Your task to perform on an android device: toggle show notifications on the lock screen Image 0: 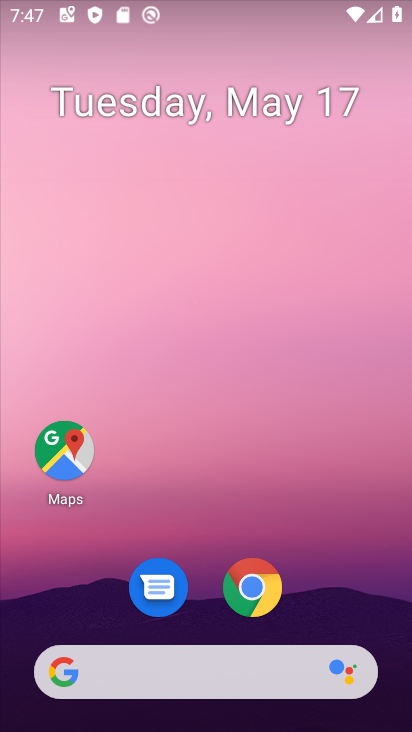
Step 0: click (295, 203)
Your task to perform on an android device: toggle show notifications on the lock screen Image 1: 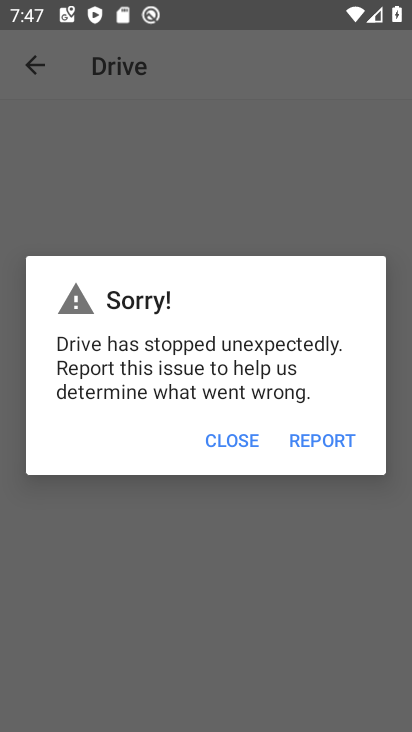
Step 1: press home button
Your task to perform on an android device: toggle show notifications on the lock screen Image 2: 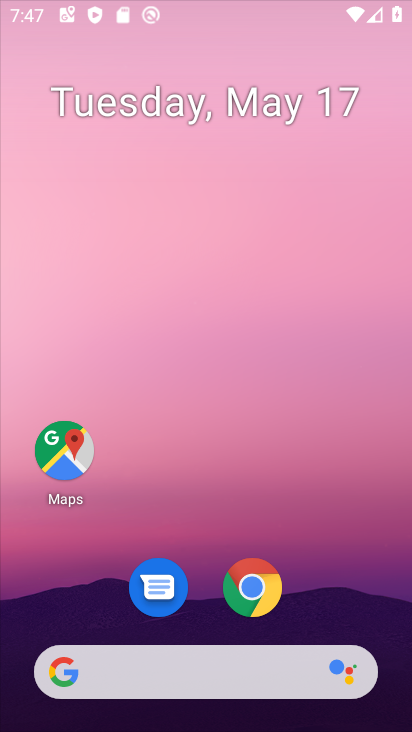
Step 2: drag from (351, 556) to (311, 204)
Your task to perform on an android device: toggle show notifications on the lock screen Image 3: 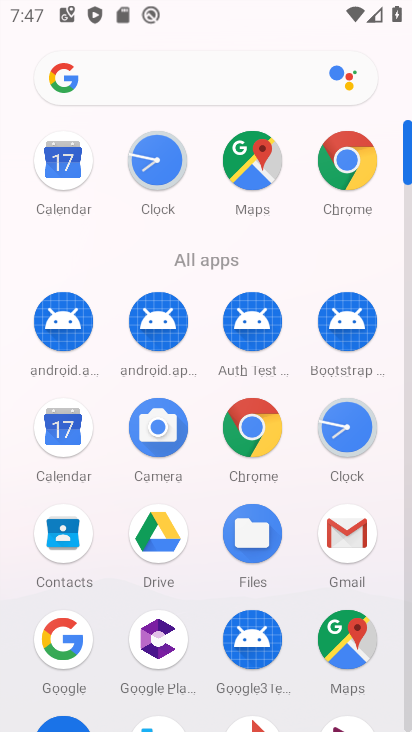
Step 3: drag from (291, 582) to (308, 408)
Your task to perform on an android device: toggle show notifications on the lock screen Image 4: 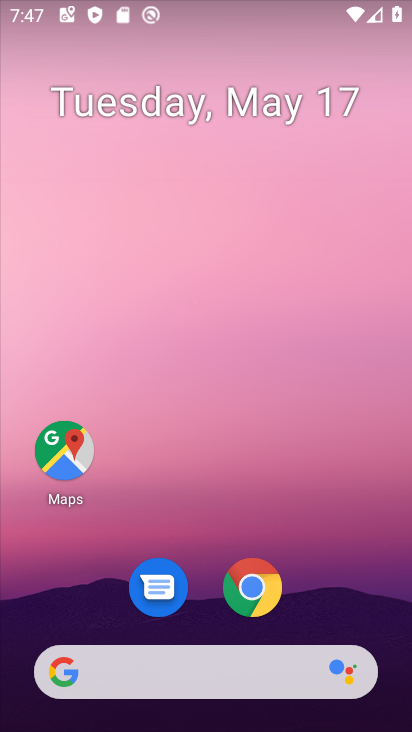
Step 4: drag from (333, 578) to (326, 162)
Your task to perform on an android device: toggle show notifications on the lock screen Image 5: 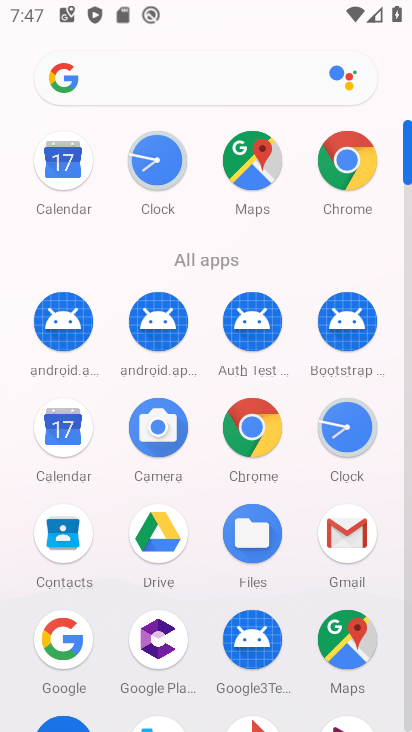
Step 5: drag from (286, 559) to (305, 336)
Your task to perform on an android device: toggle show notifications on the lock screen Image 6: 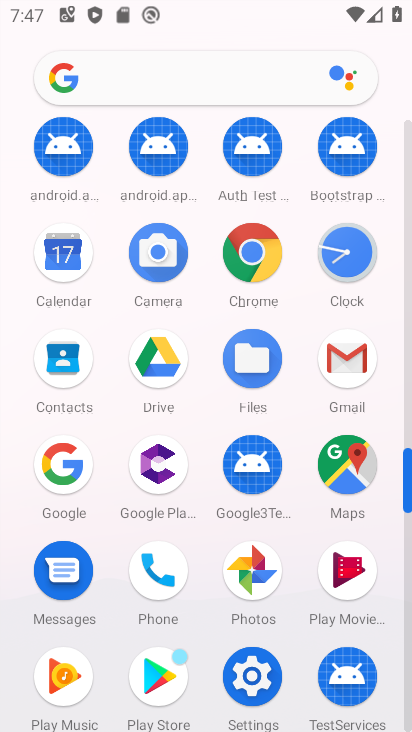
Step 6: click (246, 678)
Your task to perform on an android device: toggle show notifications on the lock screen Image 7: 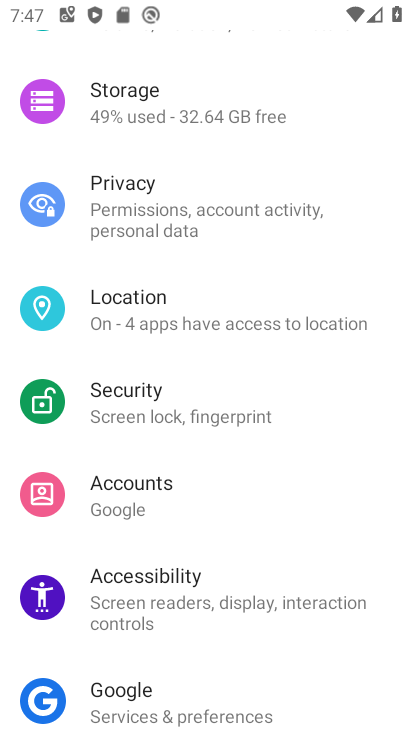
Step 7: drag from (205, 245) to (152, 613)
Your task to perform on an android device: toggle show notifications on the lock screen Image 8: 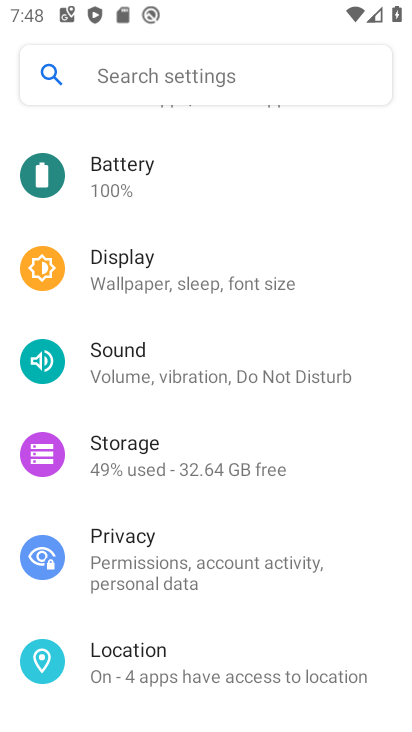
Step 8: drag from (219, 473) to (214, 645)
Your task to perform on an android device: toggle show notifications on the lock screen Image 9: 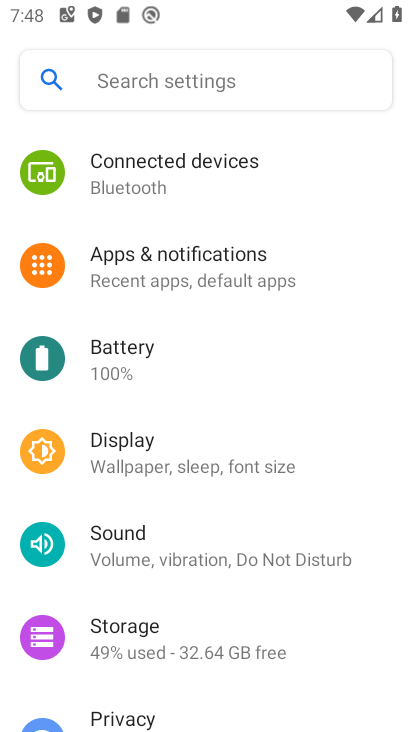
Step 9: click (219, 287)
Your task to perform on an android device: toggle show notifications on the lock screen Image 10: 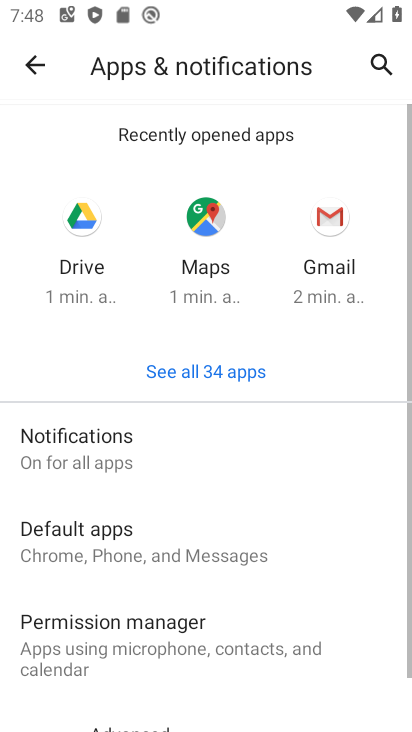
Step 10: click (142, 465)
Your task to perform on an android device: toggle show notifications on the lock screen Image 11: 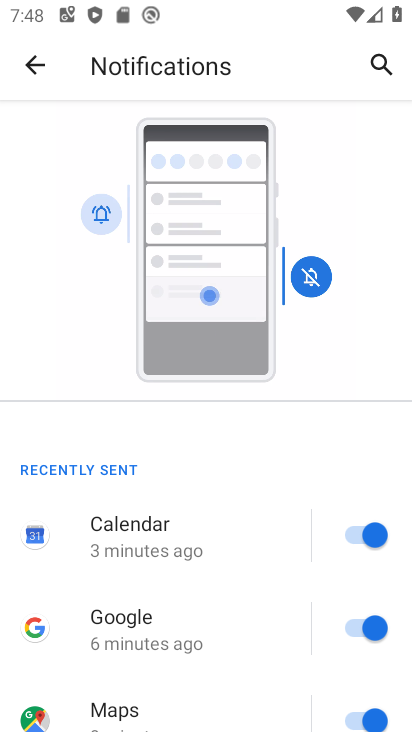
Step 11: drag from (180, 488) to (158, 156)
Your task to perform on an android device: toggle show notifications on the lock screen Image 12: 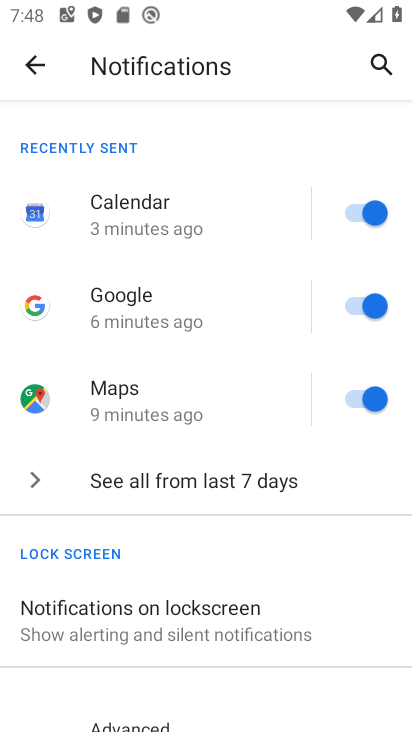
Step 12: drag from (194, 588) to (188, 380)
Your task to perform on an android device: toggle show notifications on the lock screen Image 13: 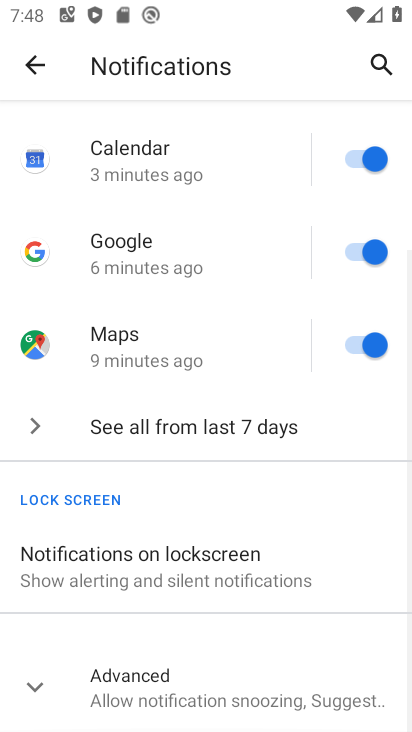
Step 13: click (149, 643)
Your task to perform on an android device: toggle show notifications on the lock screen Image 14: 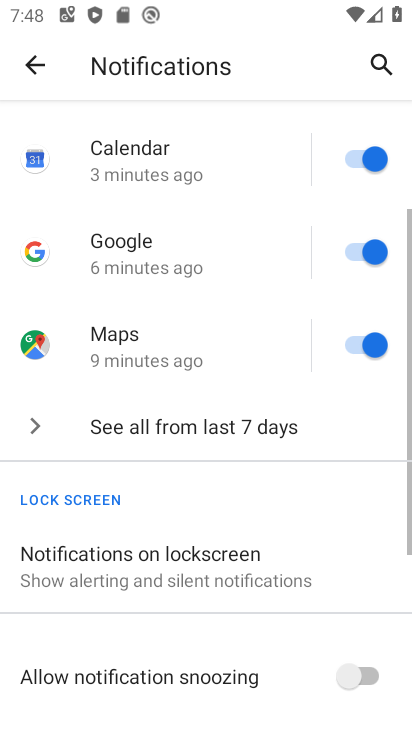
Step 14: drag from (171, 622) to (175, 338)
Your task to perform on an android device: toggle show notifications on the lock screen Image 15: 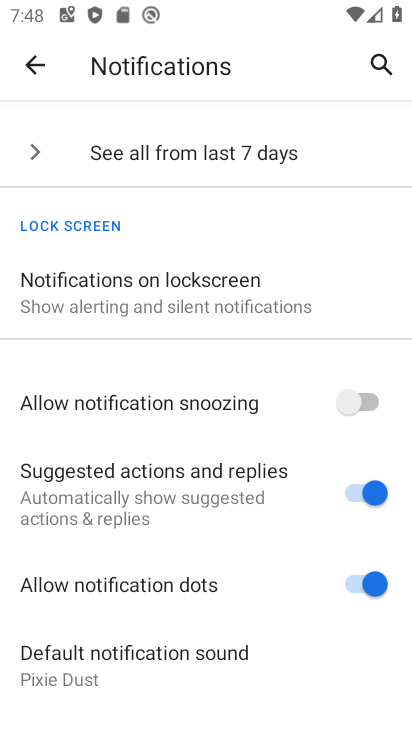
Step 15: drag from (195, 668) to (190, 409)
Your task to perform on an android device: toggle show notifications on the lock screen Image 16: 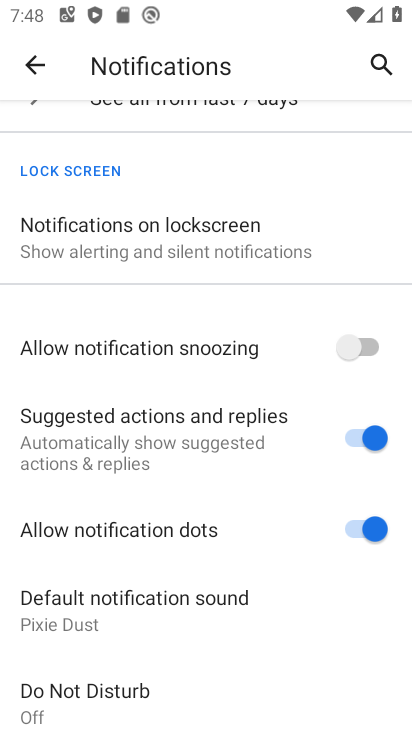
Step 16: click (146, 233)
Your task to perform on an android device: toggle show notifications on the lock screen Image 17: 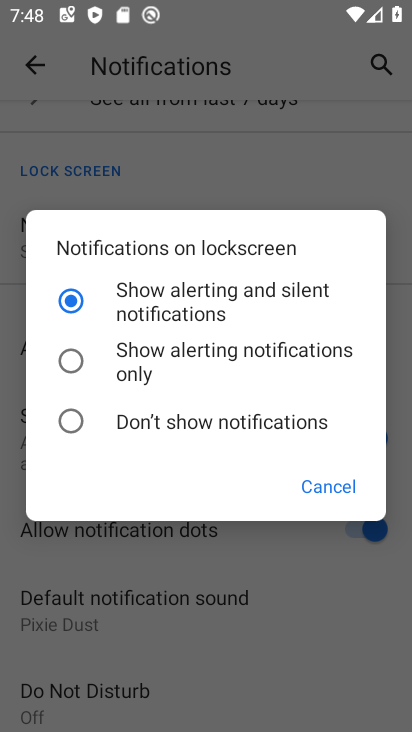
Step 17: click (196, 365)
Your task to perform on an android device: toggle show notifications on the lock screen Image 18: 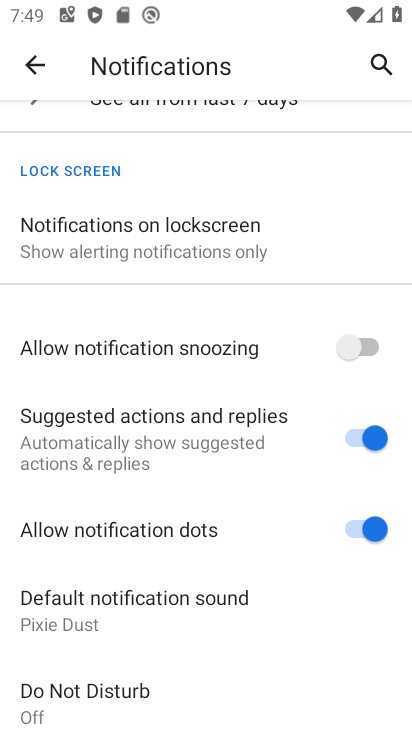
Step 18: task complete